Your task to perform on an android device: Open Google Maps and go to "Timeline" Image 0: 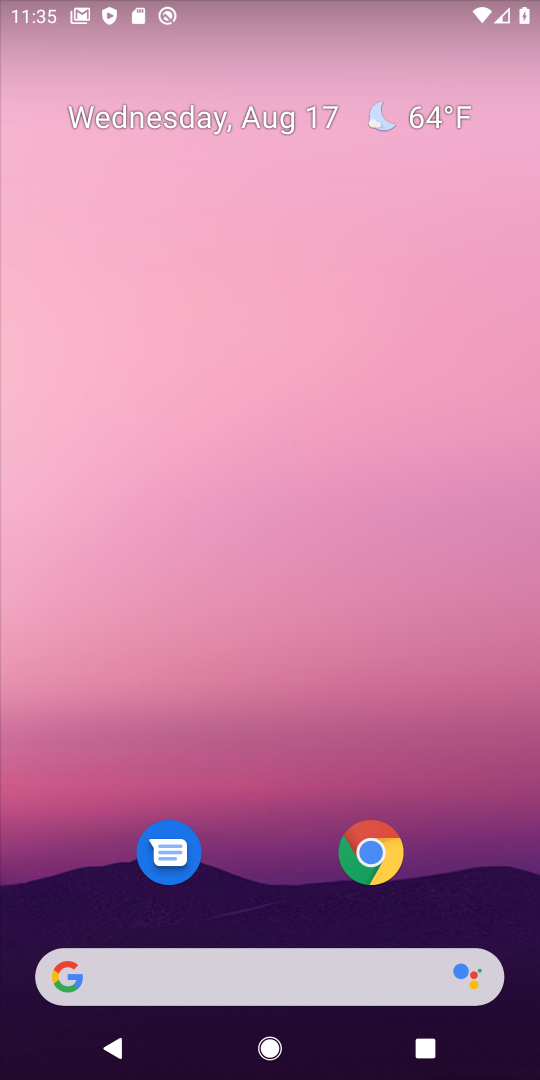
Step 0: drag from (244, 695) to (352, 26)
Your task to perform on an android device: Open Google Maps and go to "Timeline" Image 1: 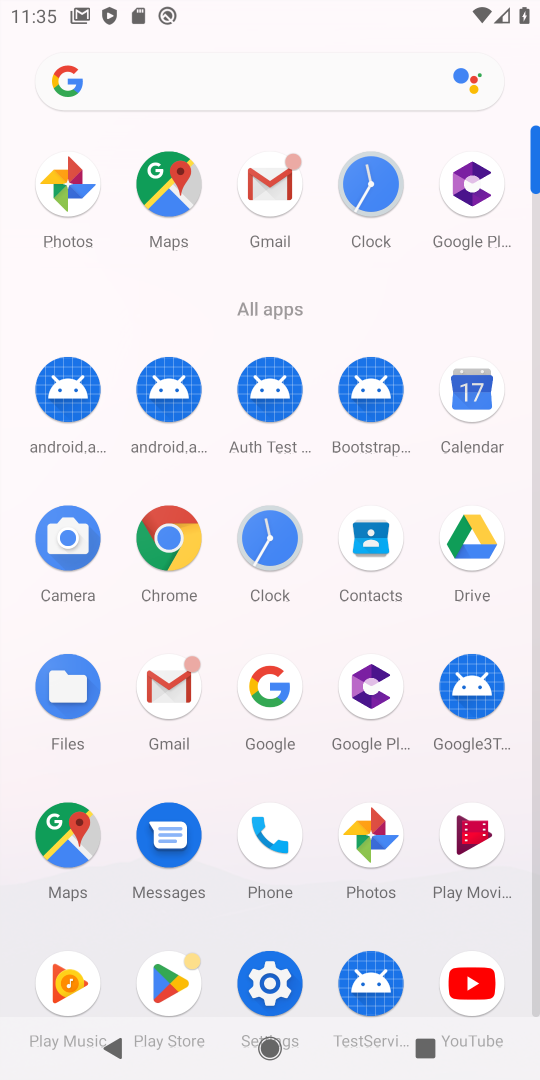
Step 1: task complete